Your task to perform on an android device: change text size in settings app Image 0: 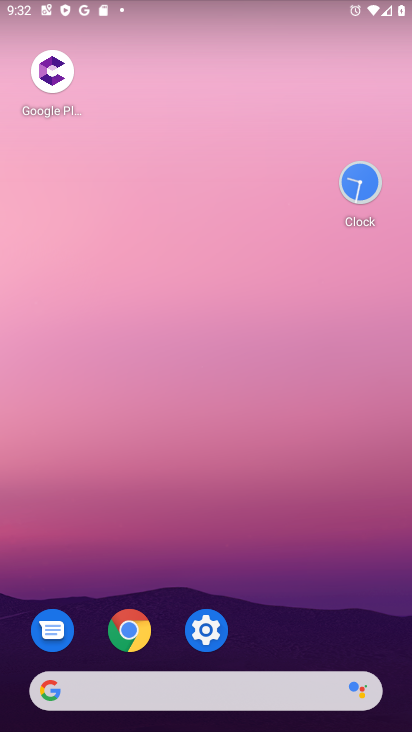
Step 0: drag from (19, 404) to (338, 357)
Your task to perform on an android device: change text size in settings app Image 1: 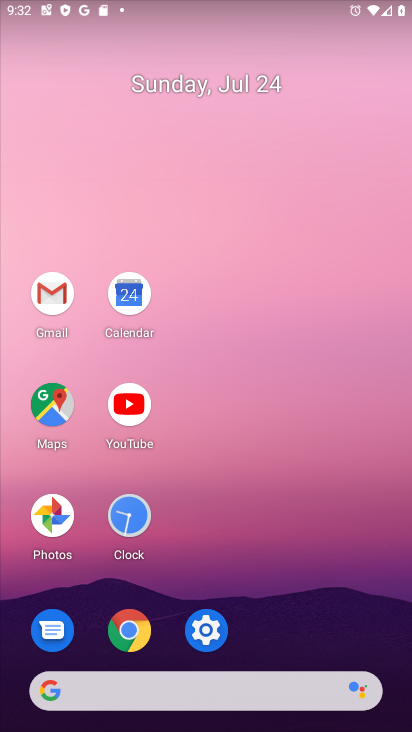
Step 1: click (212, 628)
Your task to perform on an android device: change text size in settings app Image 2: 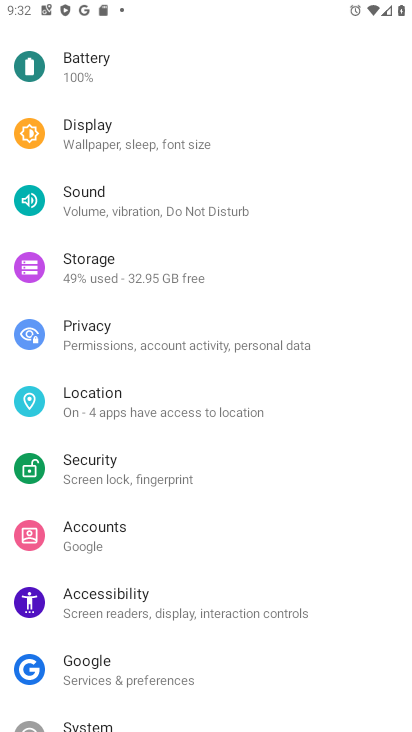
Step 2: click (80, 127)
Your task to perform on an android device: change text size in settings app Image 3: 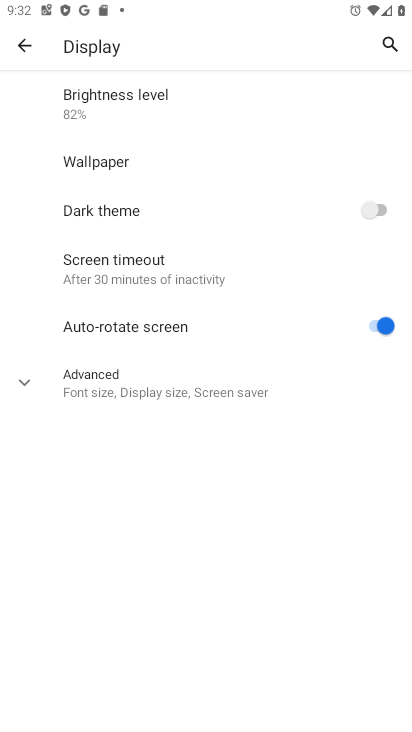
Step 3: click (72, 394)
Your task to perform on an android device: change text size in settings app Image 4: 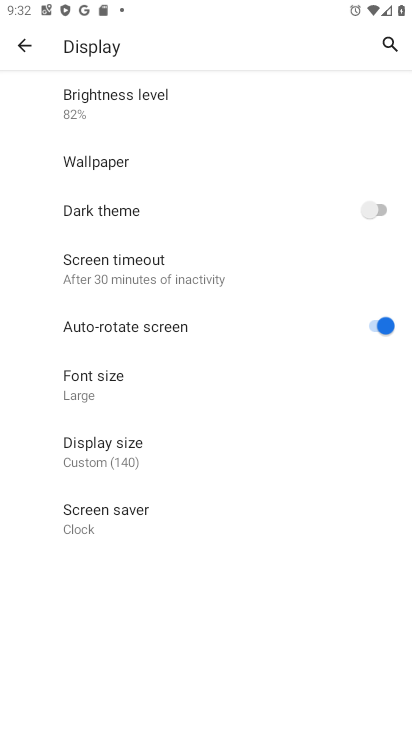
Step 4: click (71, 381)
Your task to perform on an android device: change text size in settings app Image 5: 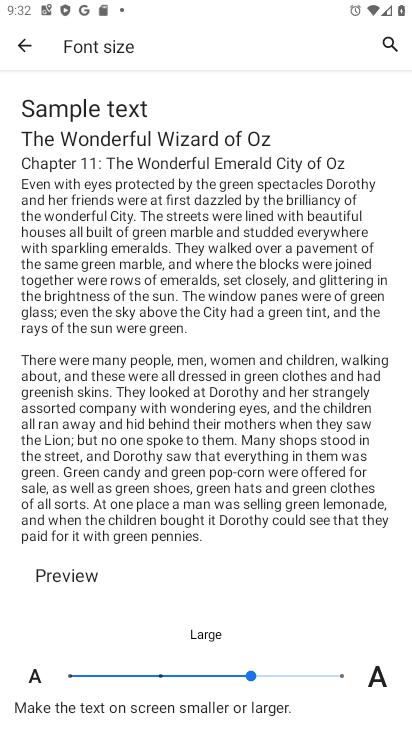
Step 5: click (308, 672)
Your task to perform on an android device: change text size in settings app Image 6: 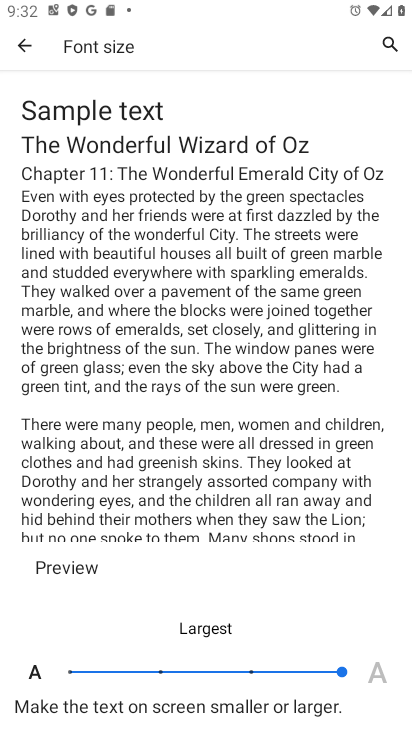
Step 6: task complete